Your task to perform on an android device: Open ESPN.com Image 0: 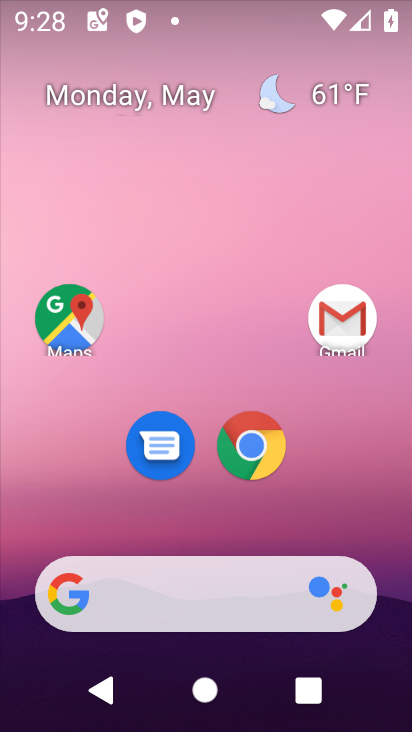
Step 0: drag from (395, 511) to (382, 216)
Your task to perform on an android device: Open ESPN.com Image 1: 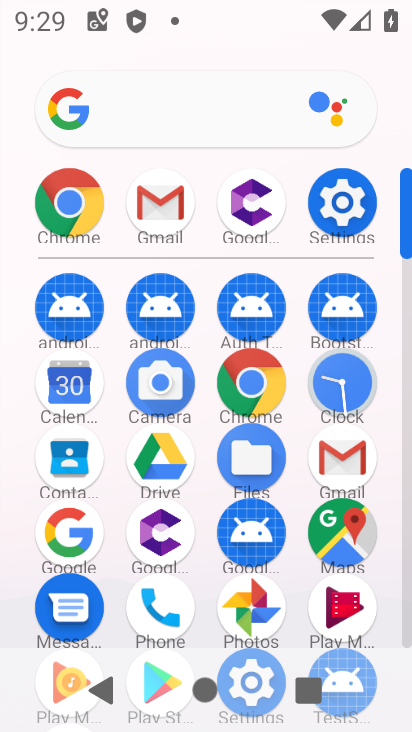
Step 1: click (271, 387)
Your task to perform on an android device: Open ESPN.com Image 2: 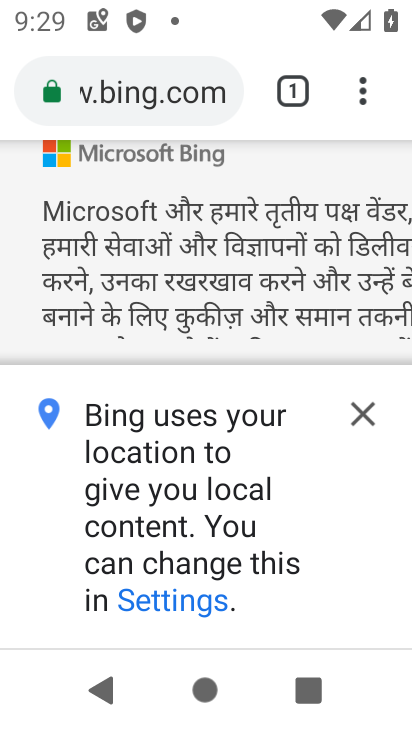
Step 2: click (207, 104)
Your task to perform on an android device: Open ESPN.com Image 3: 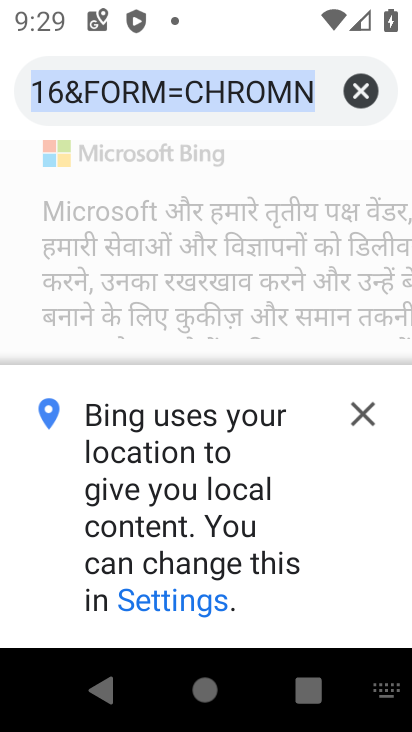
Step 3: click (368, 88)
Your task to perform on an android device: Open ESPN.com Image 4: 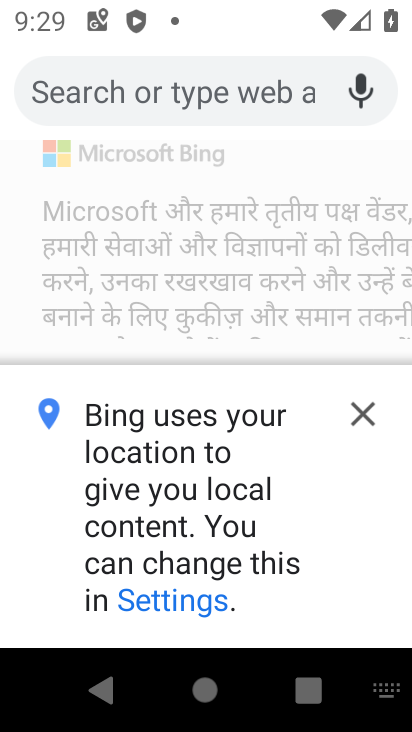
Step 4: click (282, 95)
Your task to perform on an android device: Open ESPN.com Image 5: 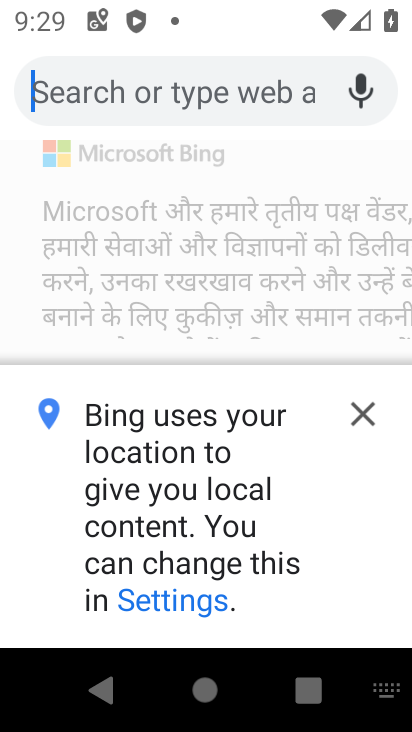
Step 5: type "espn.com"
Your task to perform on an android device: Open ESPN.com Image 6: 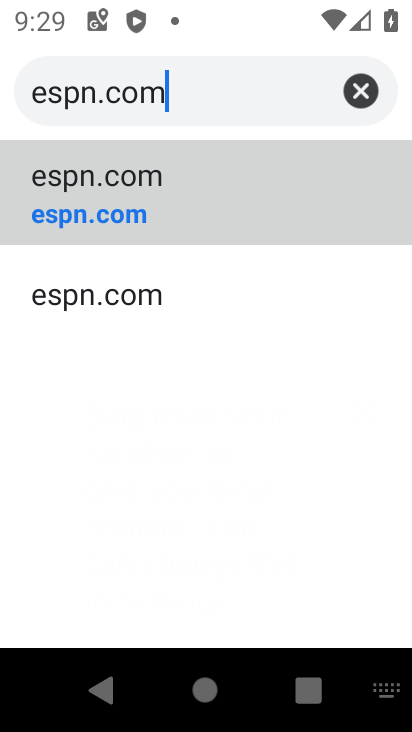
Step 6: click (148, 210)
Your task to perform on an android device: Open ESPN.com Image 7: 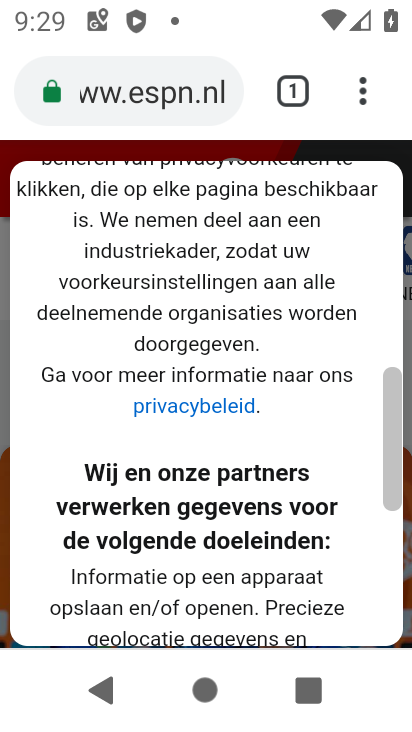
Step 7: task complete